Your task to perform on an android device: Go to battery settings Image 0: 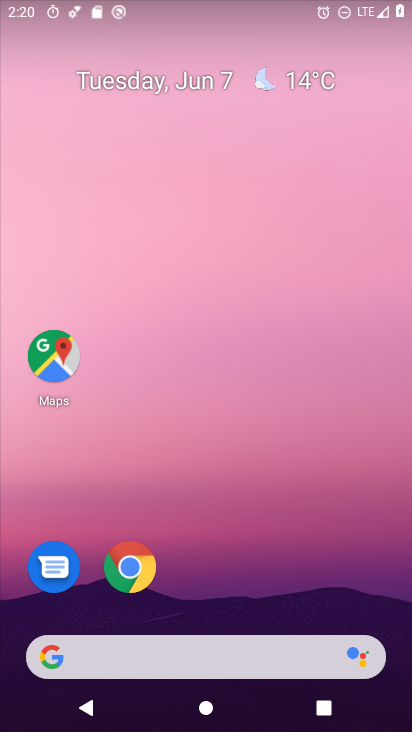
Step 0: drag from (295, 616) to (365, 31)
Your task to perform on an android device: Go to battery settings Image 1: 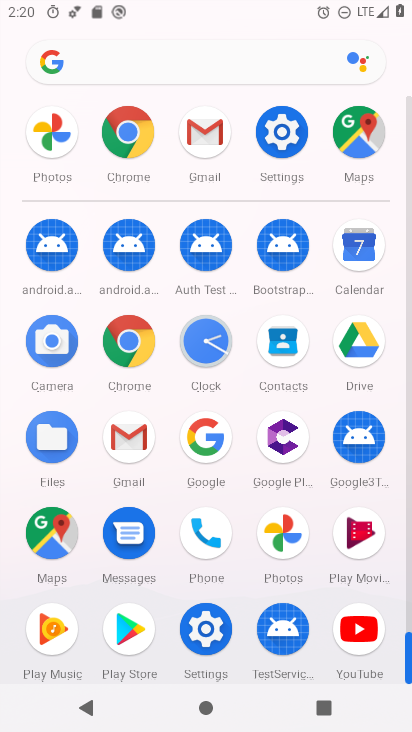
Step 1: click (290, 122)
Your task to perform on an android device: Go to battery settings Image 2: 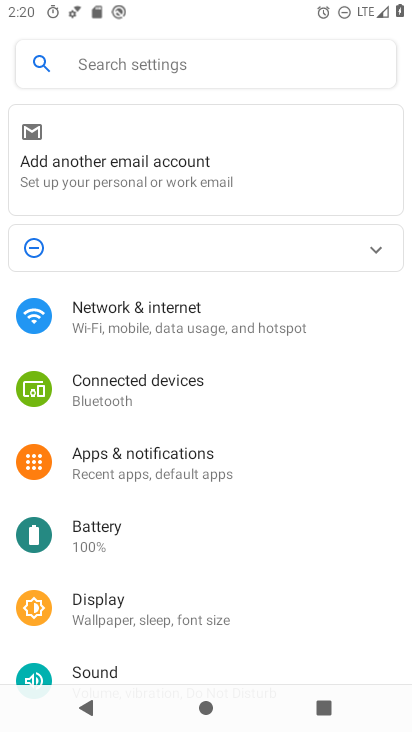
Step 2: click (98, 552)
Your task to perform on an android device: Go to battery settings Image 3: 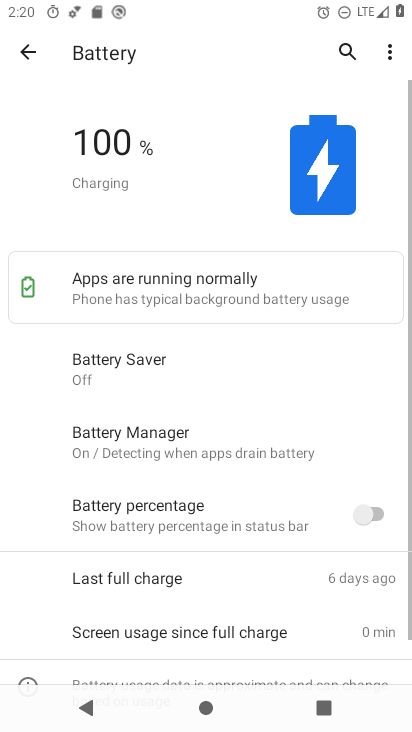
Step 3: task complete